Your task to perform on an android device: Open the calendar app, open the side menu, and click the "Day" option Image 0: 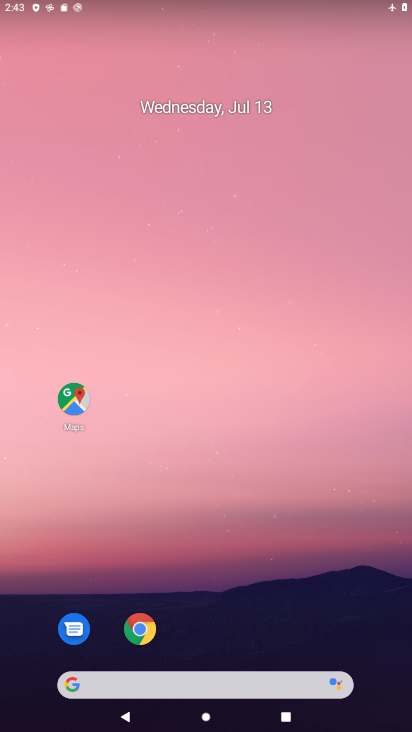
Step 0: drag from (305, 643) to (275, 110)
Your task to perform on an android device: Open the calendar app, open the side menu, and click the "Day" option Image 1: 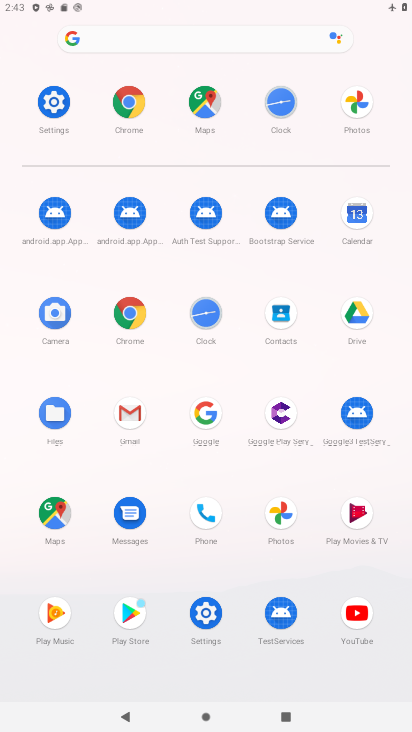
Step 1: click (352, 232)
Your task to perform on an android device: Open the calendar app, open the side menu, and click the "Day" option Image 2: 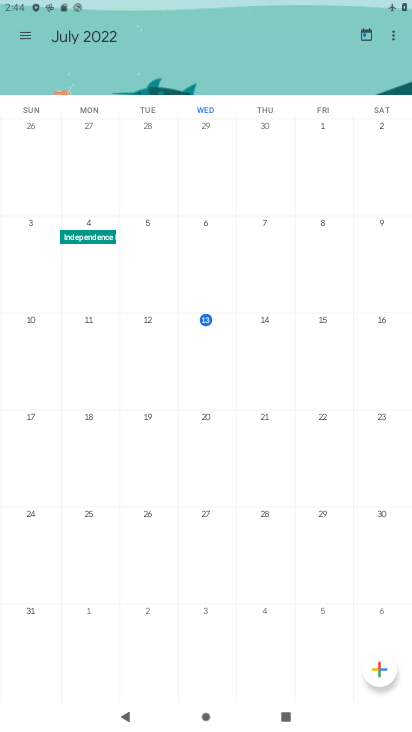
Step 2: click (15, 35)
Your task to perform on an android device: Open the calendar app, open the side menu, and click the "Day" option Image 3: 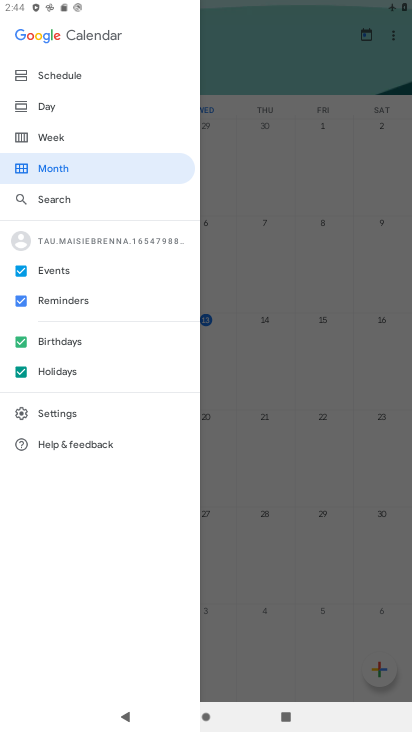
Step 3: click (79, 102)
Your task to perform on an android device: Open the calendar app, open the side menu, and click the "Day" option Image 4: 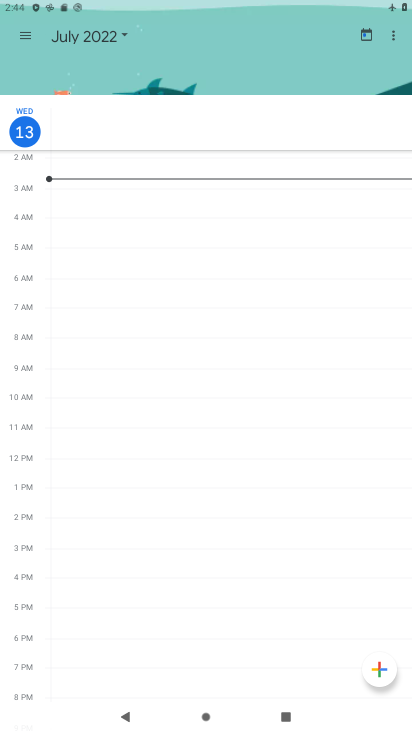
Step 4: task complete